Your task to perform on an android device: Is it going to rain this weekend? Image 0: 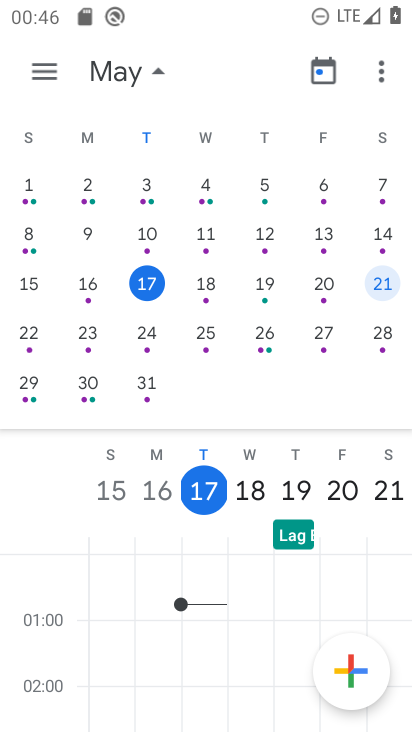
Step 0: press home button
Your task to perform on an android device: Is it going to rain this weekend? Image 1: 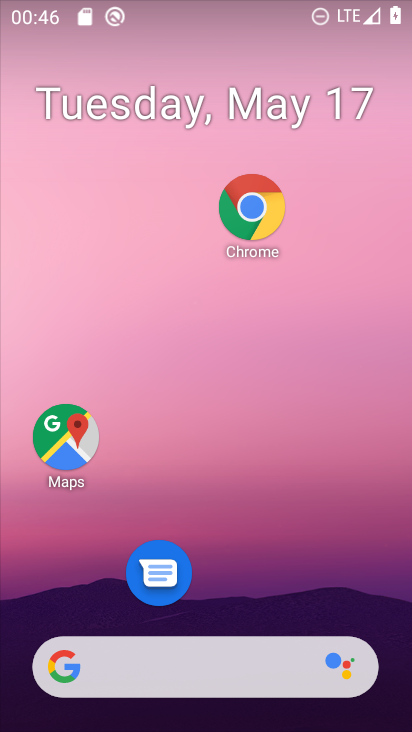
Step 1: drag from (313, 658) to (293, 62)
Your task to perform on an android device: Is it going to rain this weekend? Image 2: 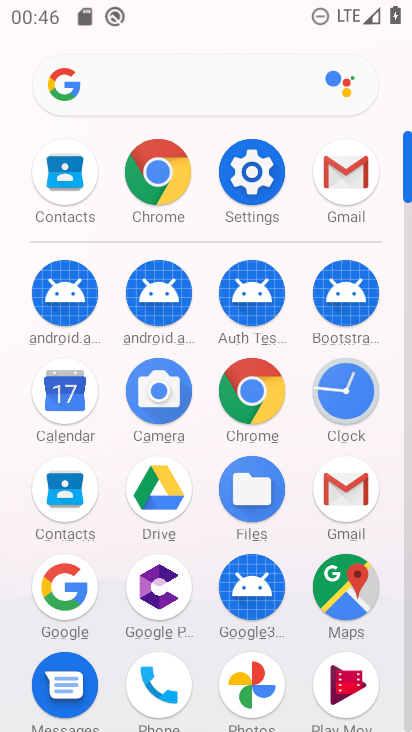
Step 2: press home button
Your task to perform on an android device: Is it going to rain this weekend? Image 3: 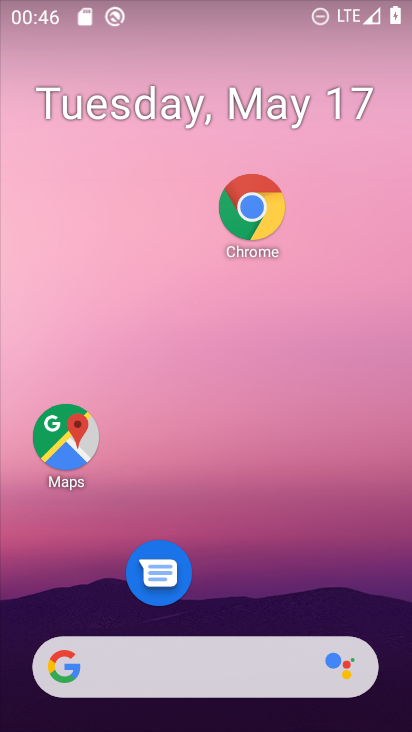
Step 3: drag from (32, 345) to (379, 332)
Your task to perform on an android device: Is it going to rain this weekend? Image 4: 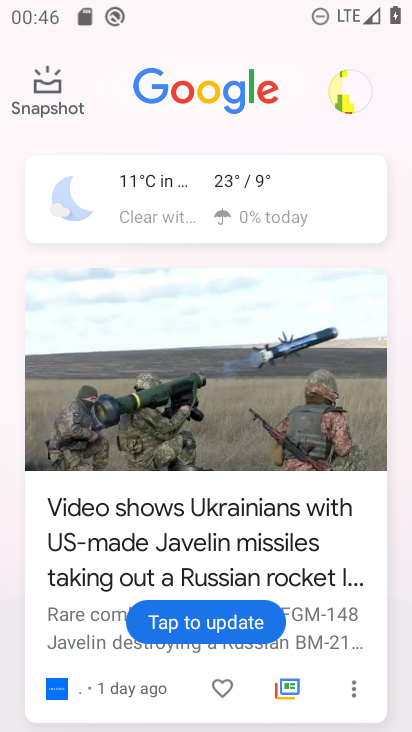
Step 4: click (308, 200)
Your task to perform on an android device: Is it going to rain this weekend? Image 5: 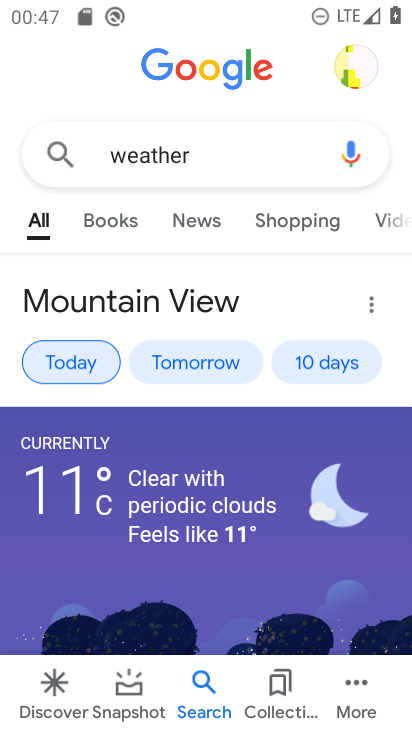
Step 5: drag from (276, 502) to (291, 264)
Your task to perform on an android device: Is it going to rain this weekend? Image 6: 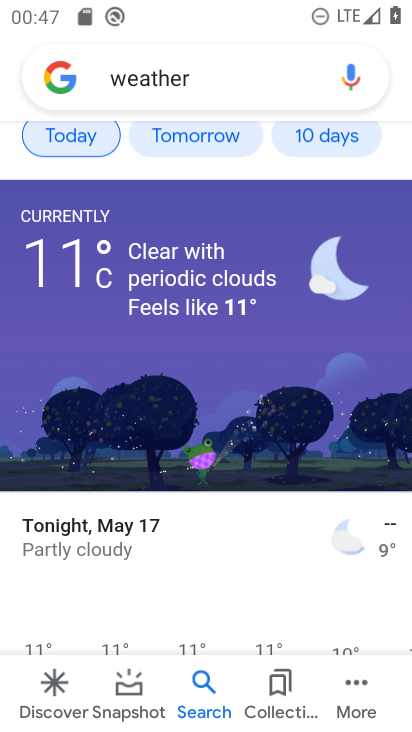
Step 6: click (339, 142)
Your task to perform on an android device: Is it going to rain this weekend? Image 7: 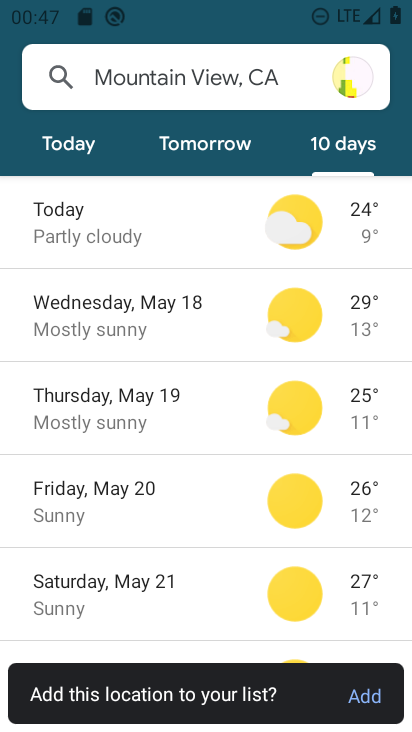
Step 7: task complete